Your task to perform on an android device: set the stopwatch Image 0: 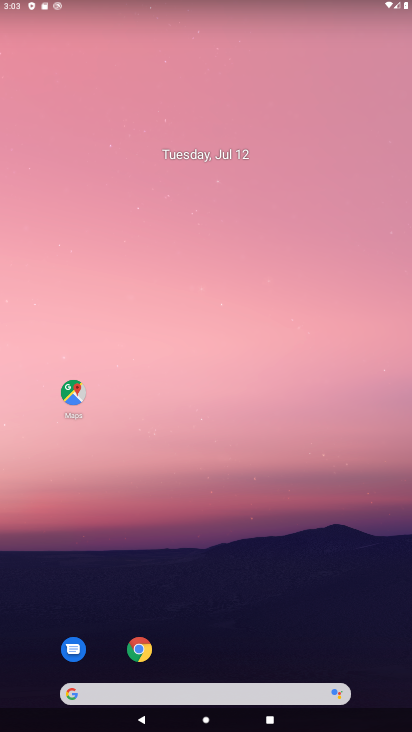
Step 0: drag from (218, 651) to (273, 62)
Your task to perform on an android device: set the stopwatch Image 1: 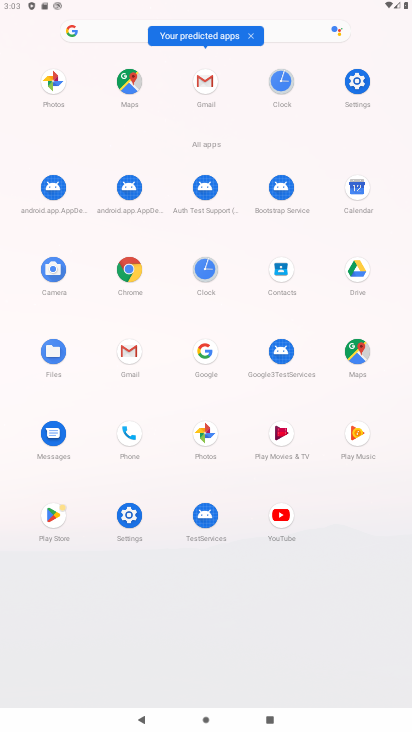
Step 1: click (203, 263)
Your task to perform on an android device: set the stopwatch Image 2: 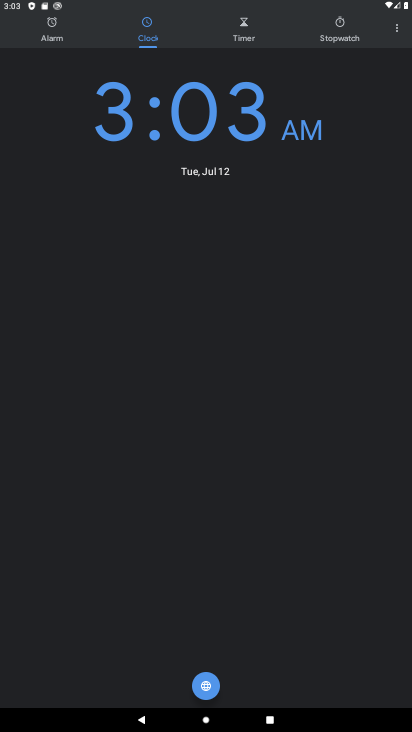
Step 2: click (344, 24)
Your task to perform on an android device: set the stopwatch Image 3: 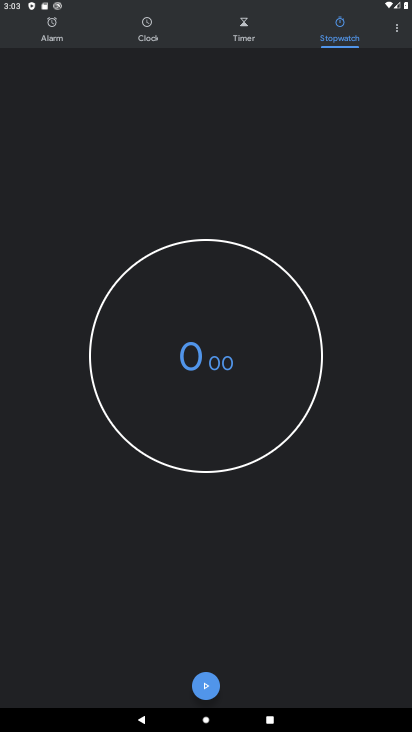
Step 3: click (202, 685)
Your task to perform on an android device: set the stopwatch Image 4: 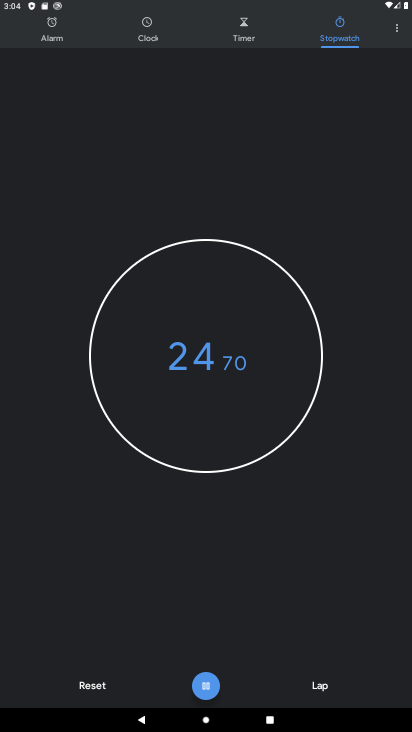
Step 4: click (93, 685)
Your task to perform on an android device: set the stopwatch Image 5: 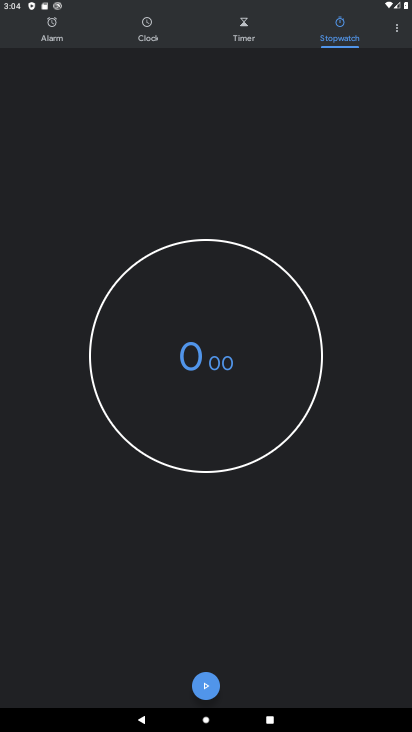
Step 5: task complete